Your task to perform on an android device: check out phone information Image 0: 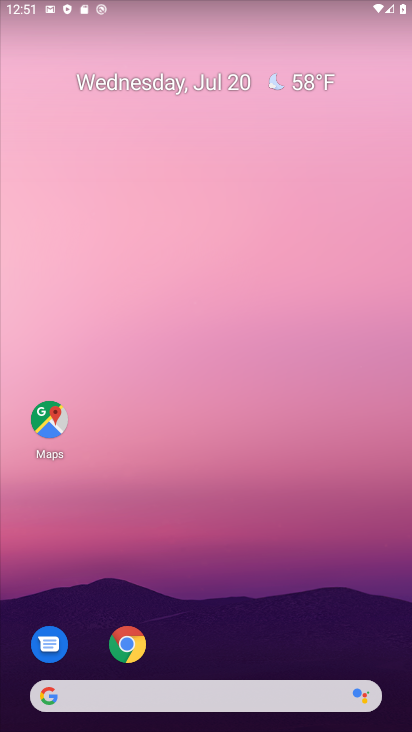
Step 0: drag from (209, 647) to (182, 145)
Your task to perform on an android device: check out phone information Image 1: 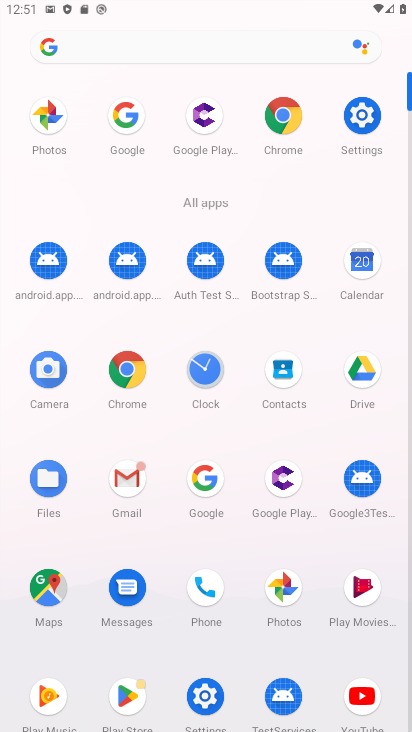
Step 1: click (201, 693)
Your task to perform on an android device: check out phone information Image 2: 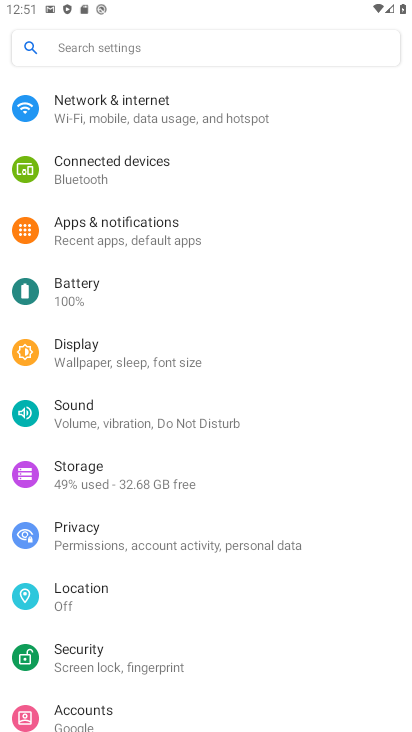
Step 2: drag from (179, 621) to (164, 169)
Your task to perform on an android device: check out phone information Image 3: 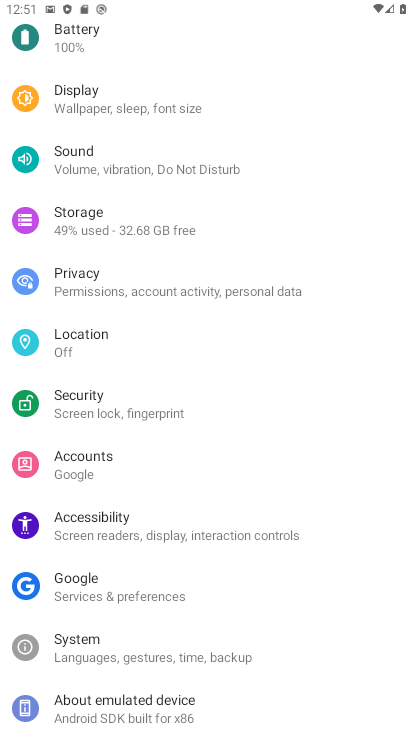
Step 3: click (118, 700)
Your task to perform on an android device: check out phone information Image 4: 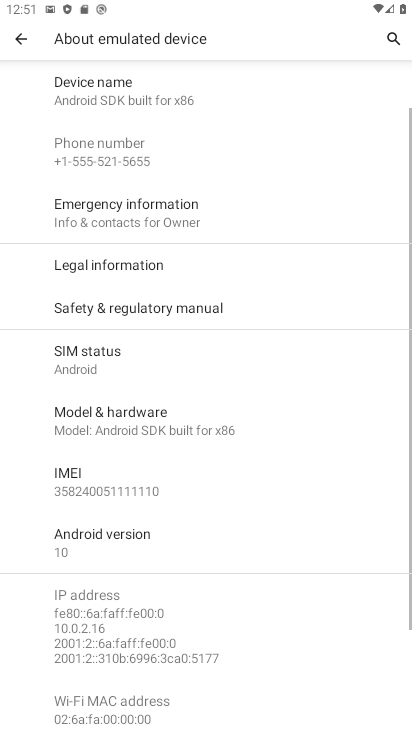
Step 4: task complete